Your task to perform on an android device: add a contact Image 0: 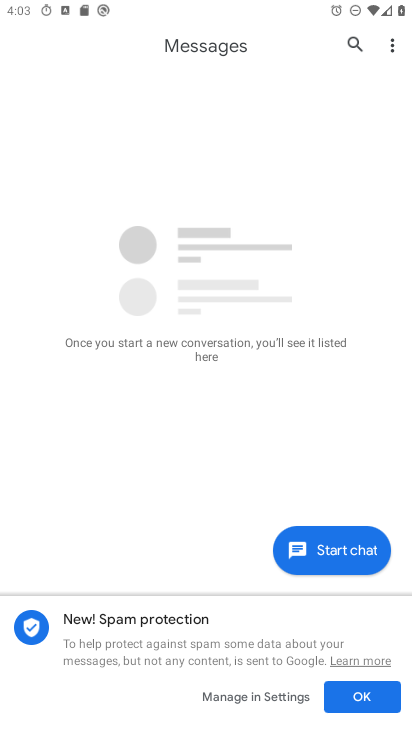
Step 0: press home button
Your task to perform on an android device: add a contact Image 1: 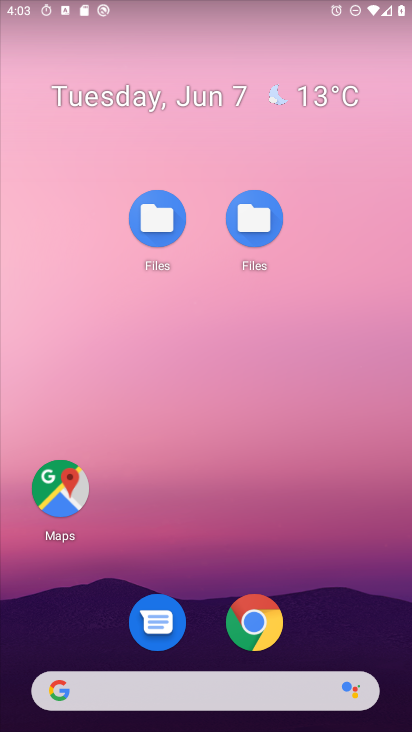
Step 1: drag from (326, 522) to (363, 163)
Your task to perform on an android device: add a contact Image 2: 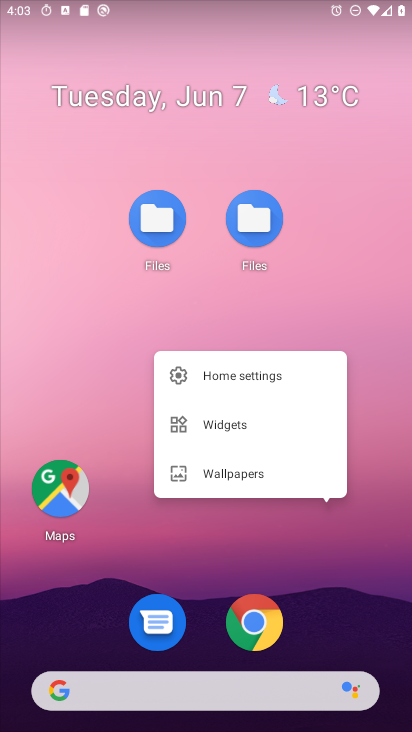
Step 2: click (365, 226)
Your task to perform on an android device: add a contact Image 3: 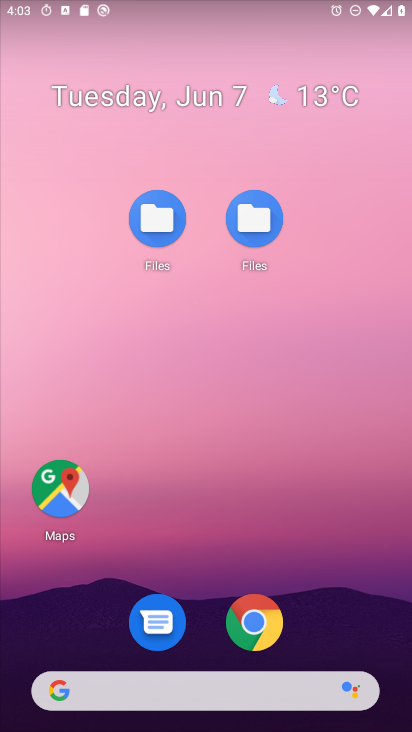
Step 3: drag from (355, 562) to (338, 126)
Your task to perform on an android device: add a contact Image 4: 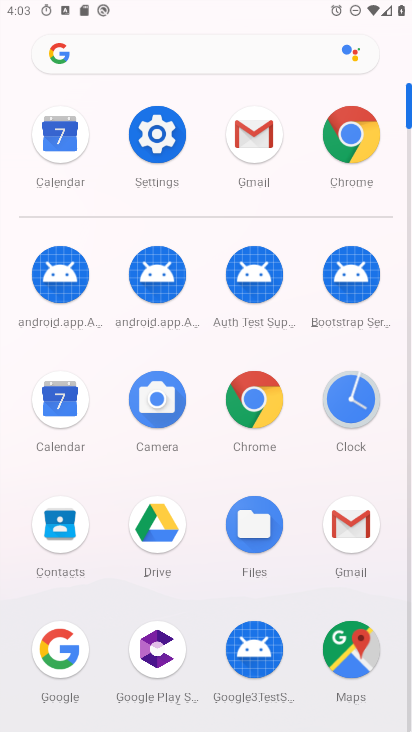
Step 4: click (57, 528)
Your task to perform on an android device: add a contact Image 5: 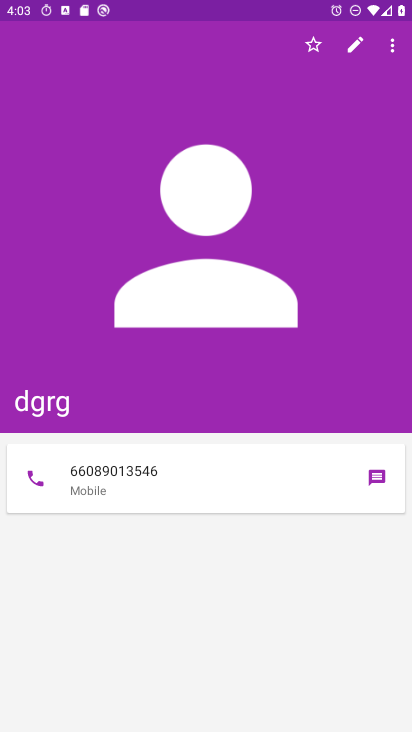
Step 5: press back button
Your task to perform on an android device: add a contact Image 6: 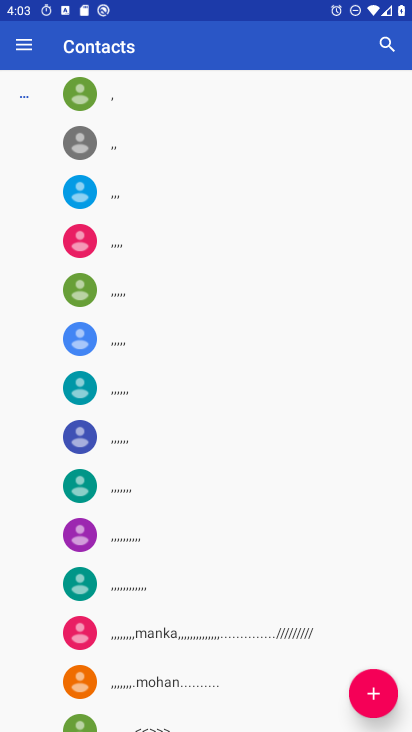
Step 6: click (364, 695)
Your task to perform on an android device: add a contact Image 7: 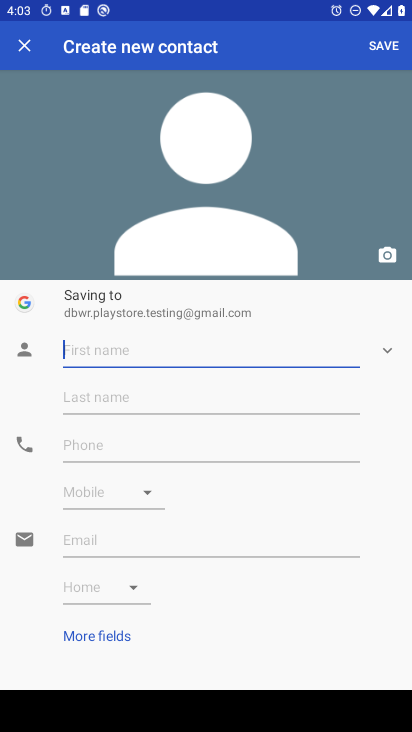
Step 7: type "fug"
Your task to perform on an android device: add a contact Image 8: 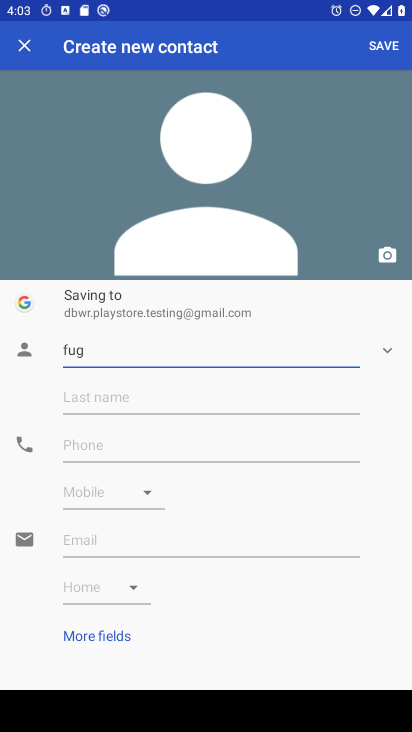
Step 8: click (185, 455)
Your task to perform on an android device: add a contact Image 9: 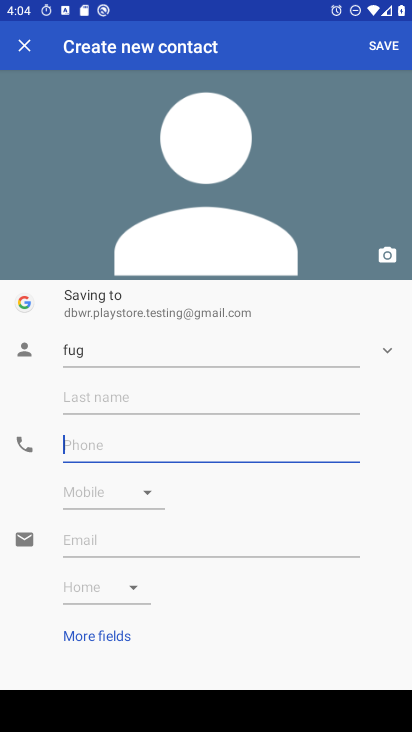
Step 9: type "5769089775354"
Your task to perform on an android device: add a contact Image 10: 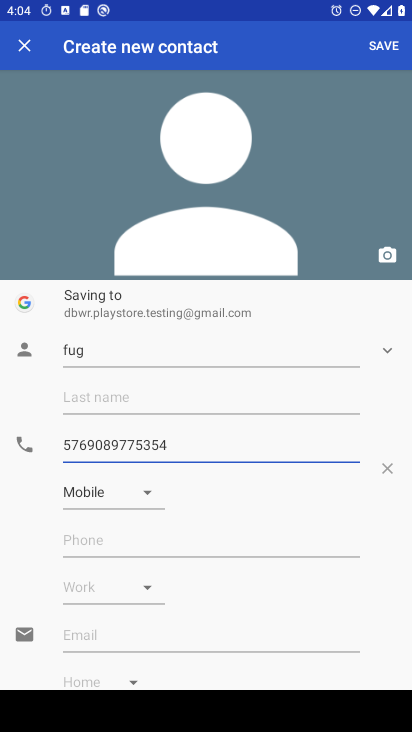
Step 10: click (386, 45)
Your task to perform on an android device: add a contact Image 11: 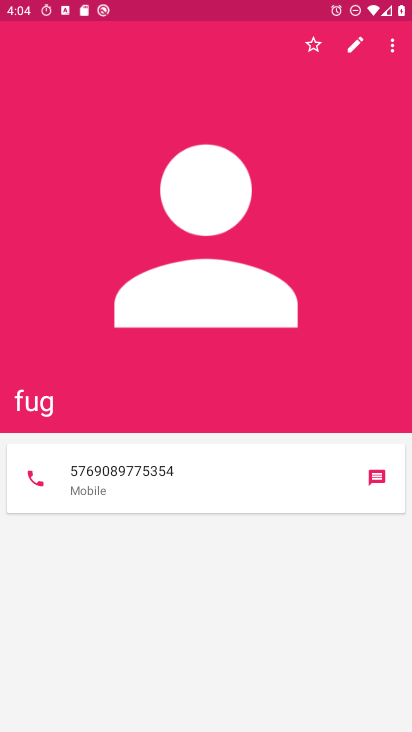
Step 11: task complete